Your task to perform on an android device: change the clock display to analog Image 0: 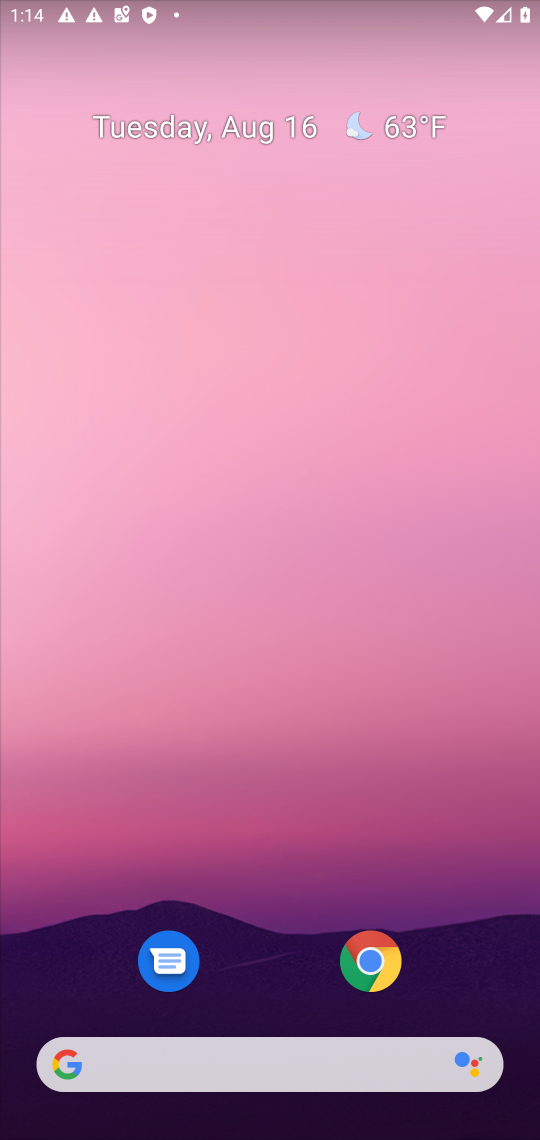
Step 0: drag from (444, 980) to (227, 97)
Your task to perform on an android device: change the clock display to analog Image 1: 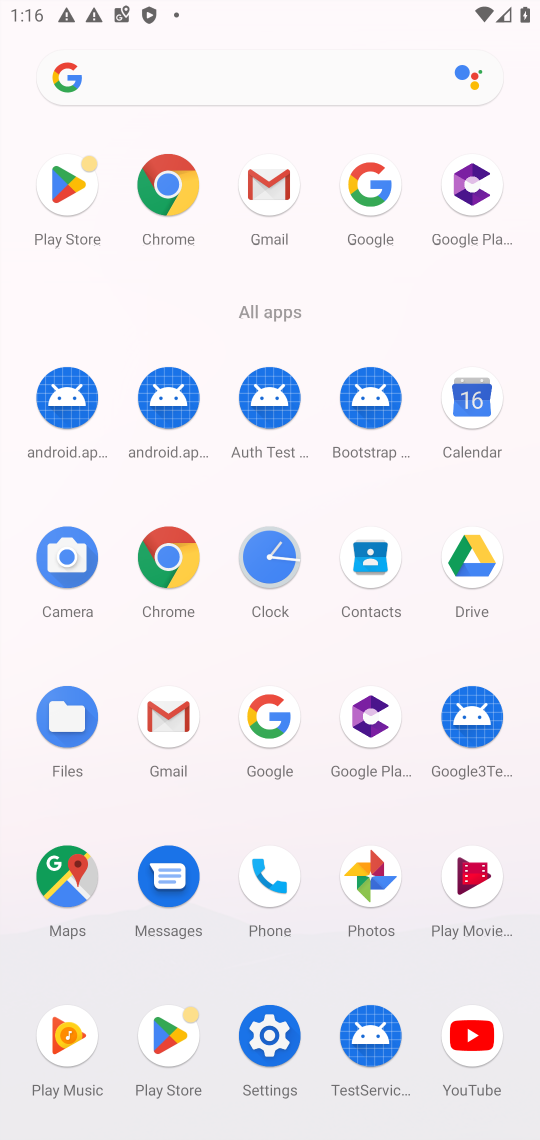
Step 1: click (266, 567)
Your task to perform on an android device: change the clock display to analog Image 2: 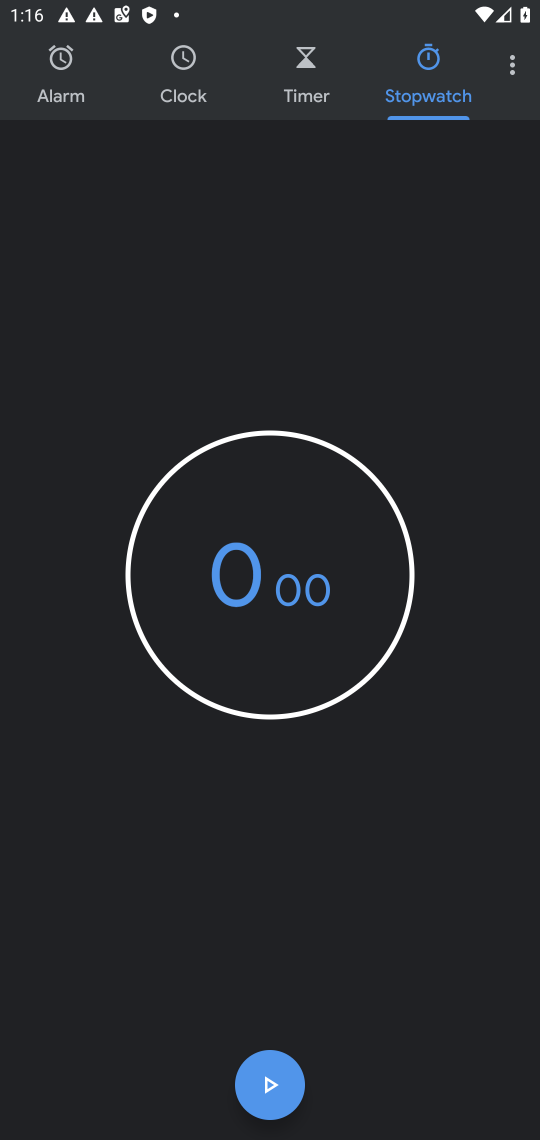
Step 2: click (505, 70)
Your task to perform on an android device: change the clock display to analog Image 3: 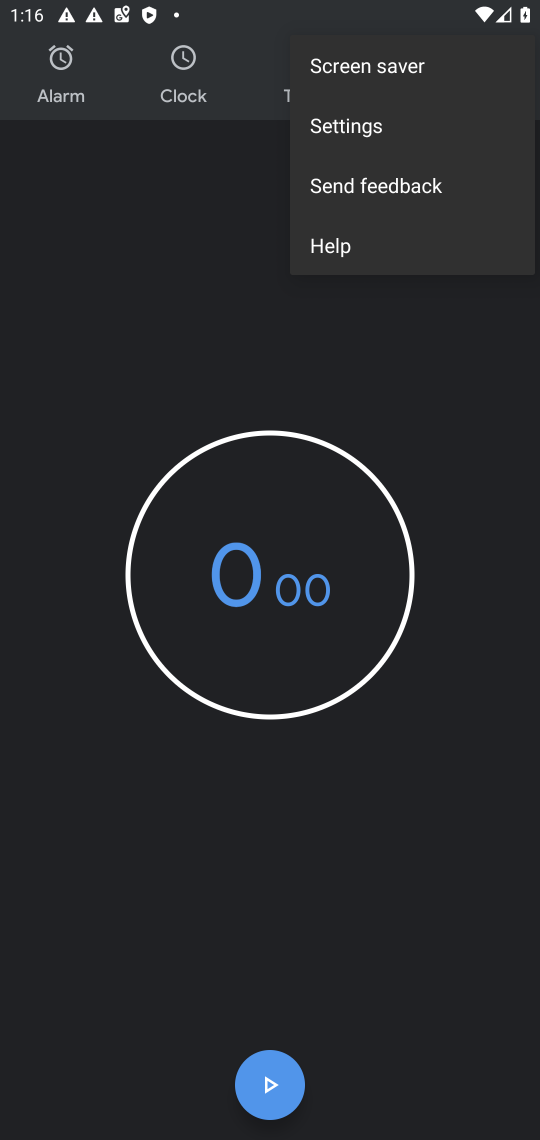
Step 3: click (356, 127)
Your task to perform on an android device: change the clock display to analog Image 4: 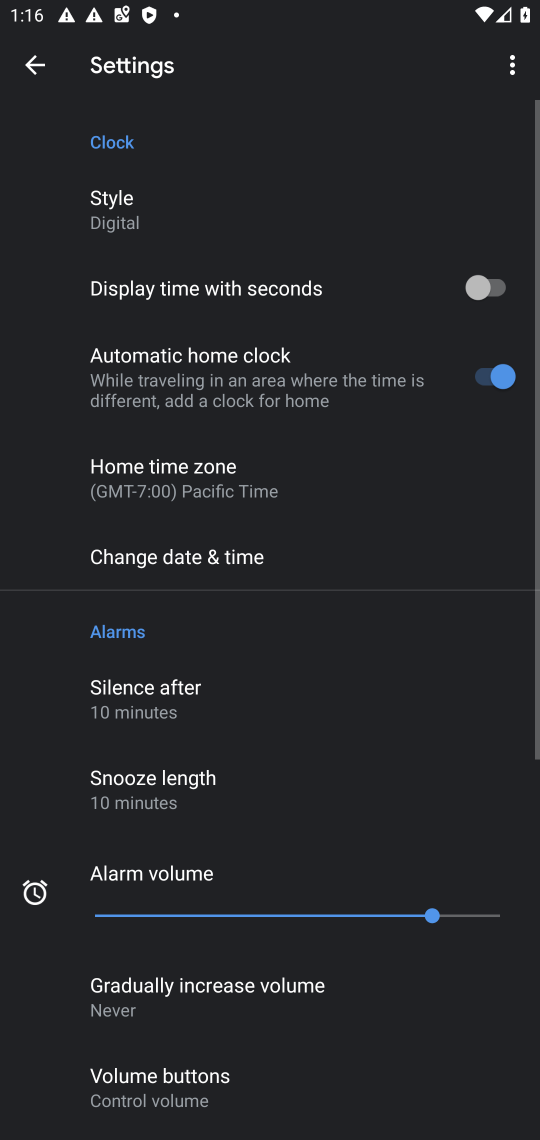
Step 4: click (116, 227)
Your task to perform on an android device: change the clock display to analog Image 5: 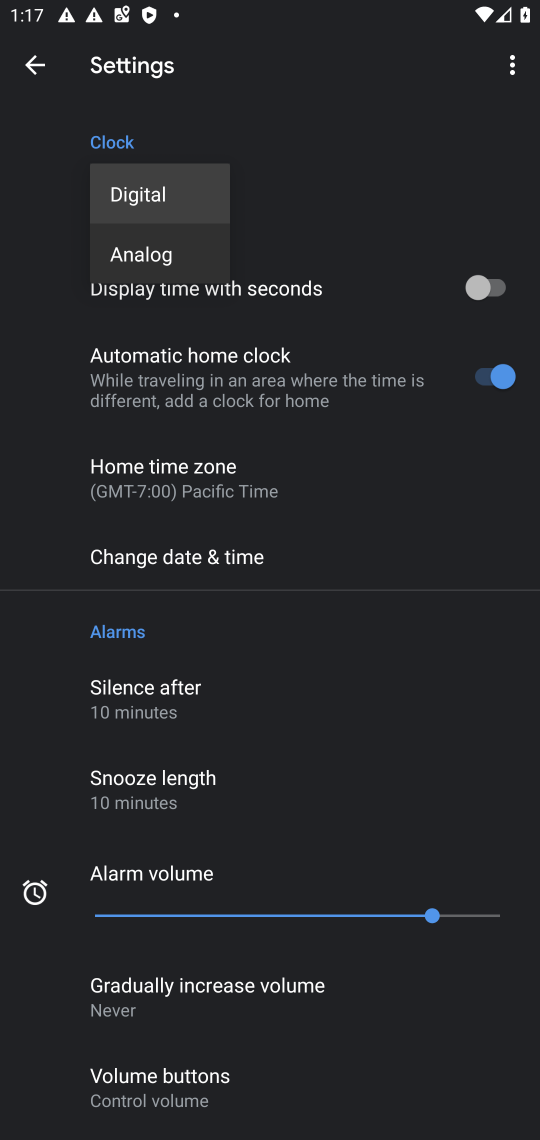
Step 5: click (160, 258)
Your task to perform on an android device: change the clock display to analog Image 6: 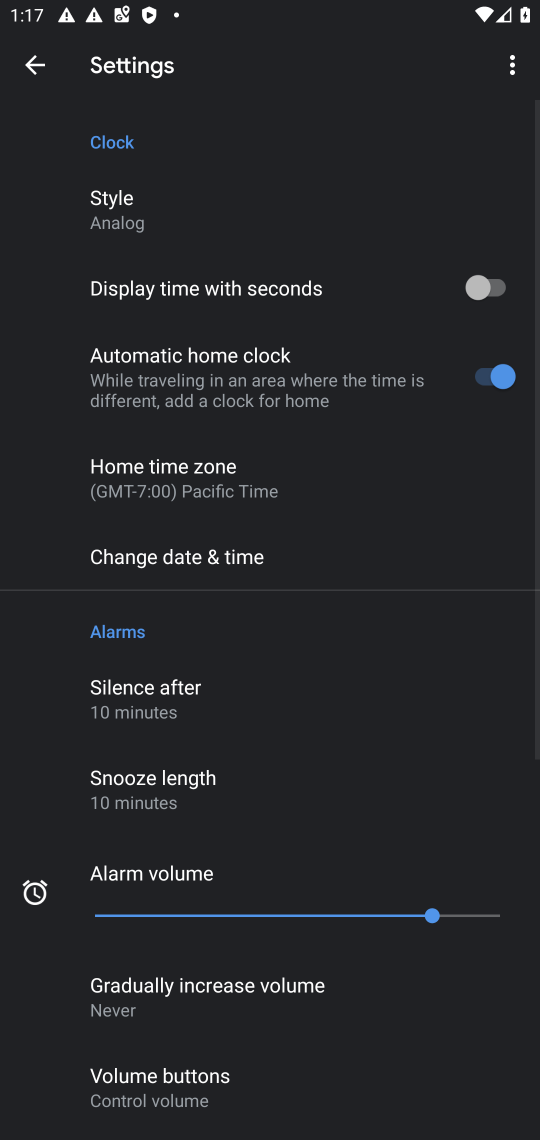
Step 6: task complete